Your task to perform on an android device: turn off sleep mode Image 0: 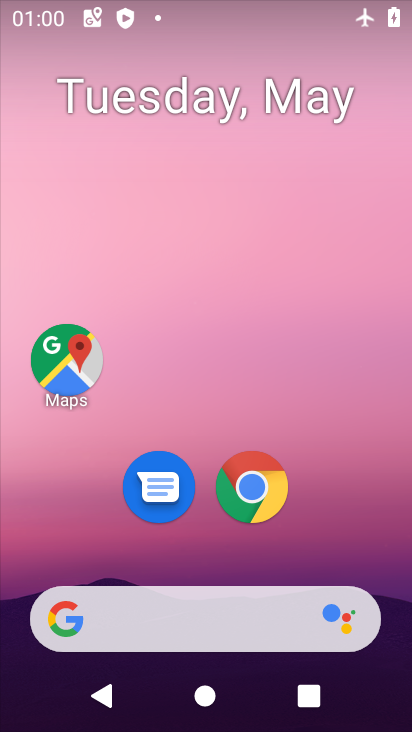
Step 0: press home button
Your task to perform on an android device: turn off sleep mode Image 1: 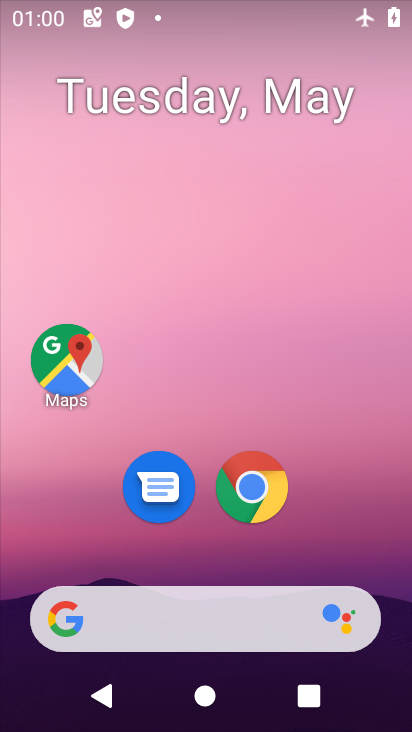
Step 1: drag from (307, 493) to (306, 53)
Your task to perform on an android device: turn off sleep mode Image 2: 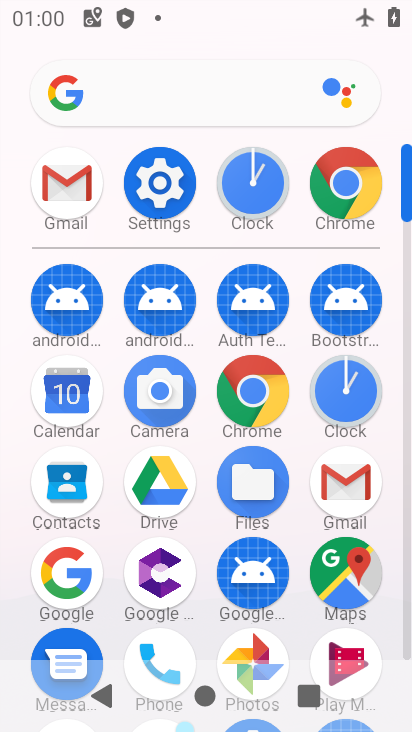
Step 2: click (164, 181)
Your task to perform on an android device: turn off sleep mode Image 3: 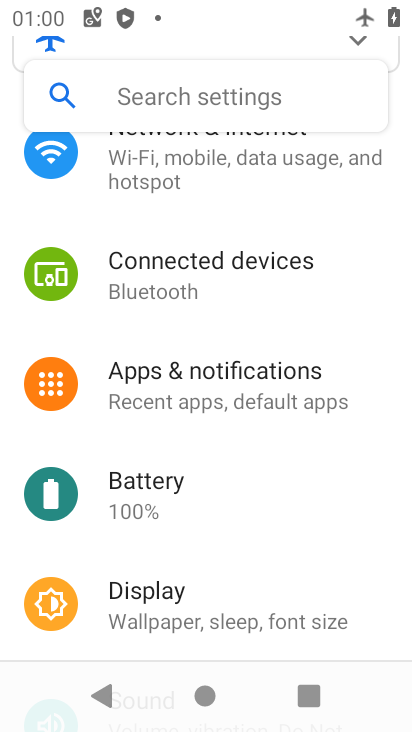
Step 3: click (213, 610)
Your task to perform on an android device: turn off sleep mode Image 4: 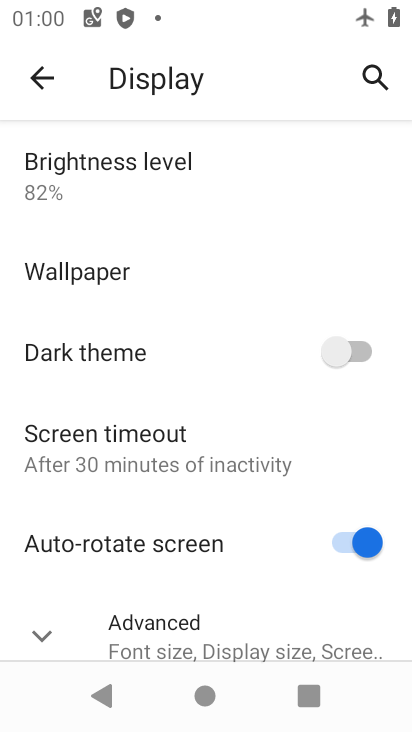
Step 4: drag from (228, 561) to (252, 284)
Your task to perform on an android device: turn off sleep mode Image 5: 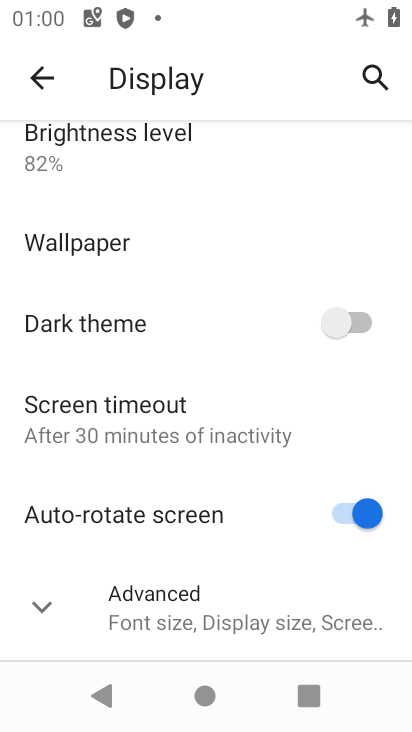
Step 5: click (239, 615)
Your task to perform on an android device: turn off sleep mode Image 6: 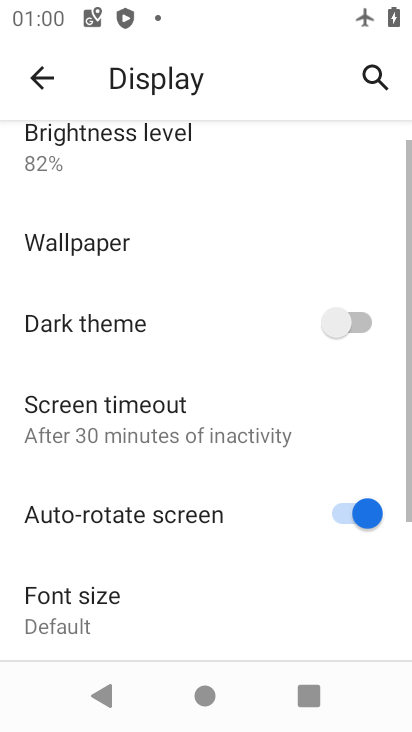
Step 6: task complete